Your task to perform on an android device: When is my next meeting? Image 0: 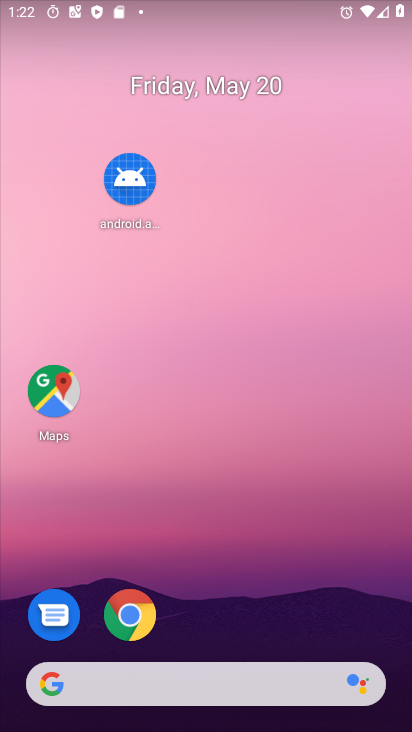
Step 0: drag from (319, 628) to (274, 136)
Your task to perform on an android device: When is my next meeting? Image 1: 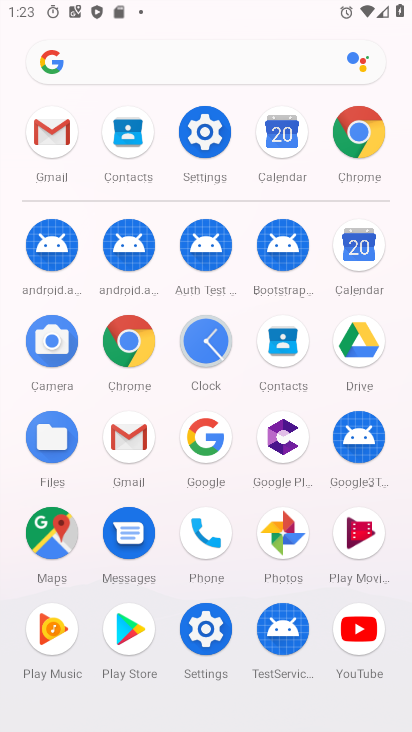
Step 1: click (365, 242)
Your task to perform on an android device: When is my next meeting? Image 2: 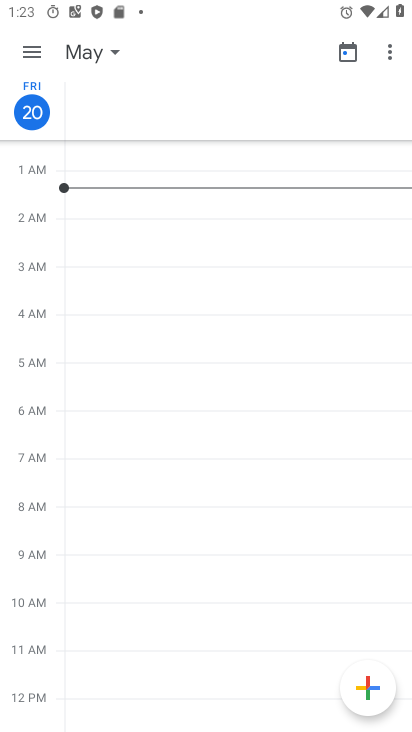
Step 2: click (23, 48)
Your task to perform on an android device: When is my next meeting? Image 3: 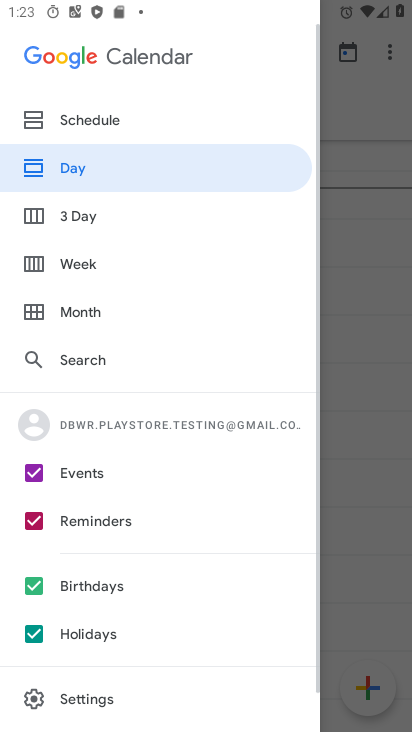
Step 3: click (96, 114)
Your task to perform on an android device: When is my next meeting? Image 4: 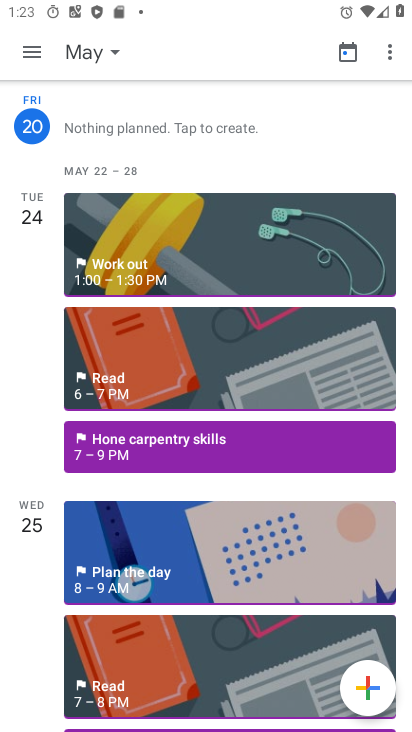
Step 4: task complete